Your task to perform on an android device: Is it going to rain today? Image 0: 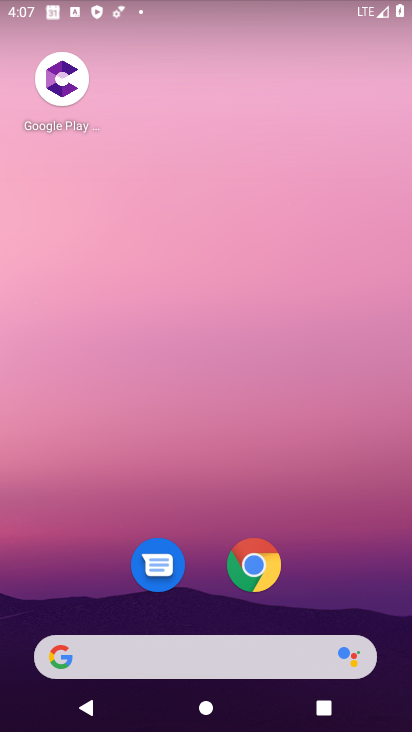
Step 0: drag from (310, 660) to (353, 5)
Your task to perform on an android device: Is it going to rain today? Image 1: 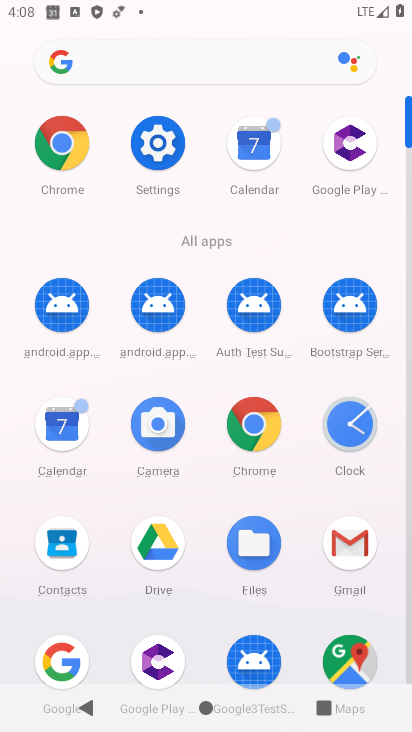
Step 1: press home button
Your task to perform on an android device: Is it going to rain today? Image 2: 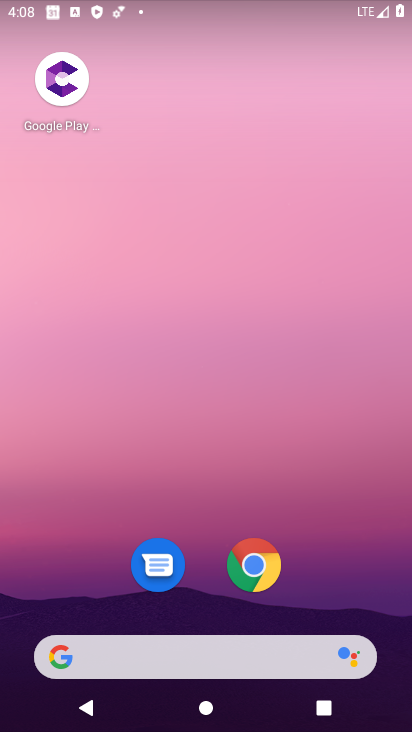
Step 2: drag from (26, 207) to (405, 260)
Your task to perform on an android device: Is it going to rain today? Image 3: 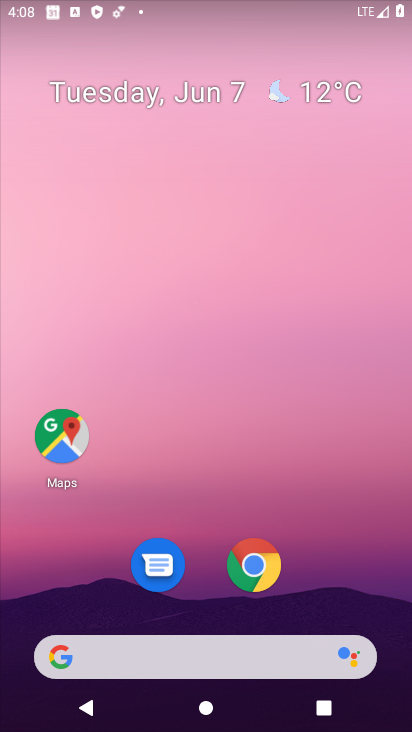
Step 3: drag from (50, 242) to (406, 283)
Your task to perform on an android device: Is it going to rain today? Image 4: 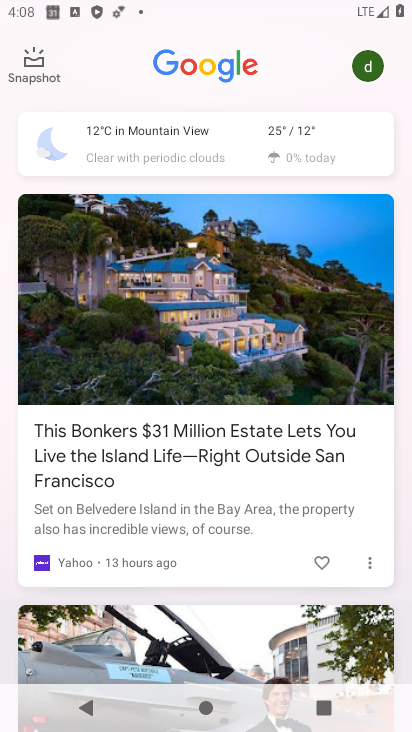
Step 4: click (150, 139)
Your task to perform on an android device: Is it going to rain today? Image 5: 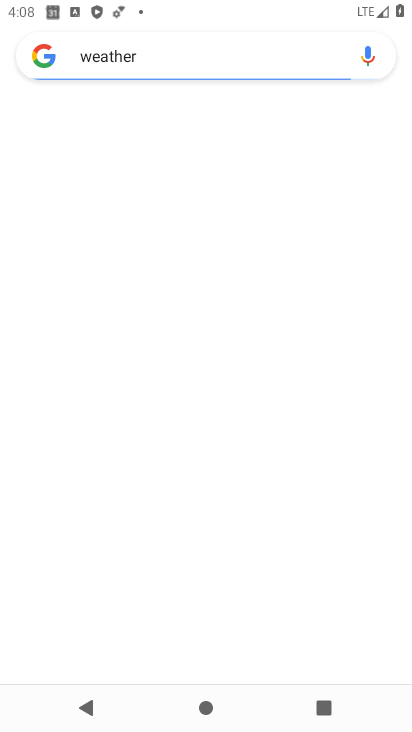
Step 5: task complete